Your task to perform on an android device: refresh tabs in the chrome app Image 0: 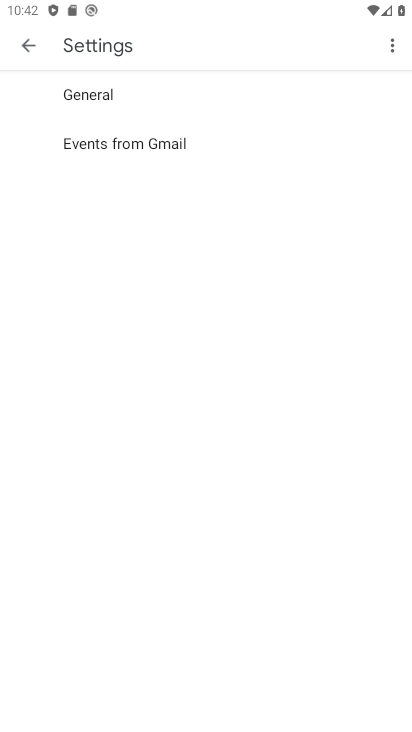
Step 0: press home button
Your task to perform on an android device: refresh tabs in the chrome app Image 1: 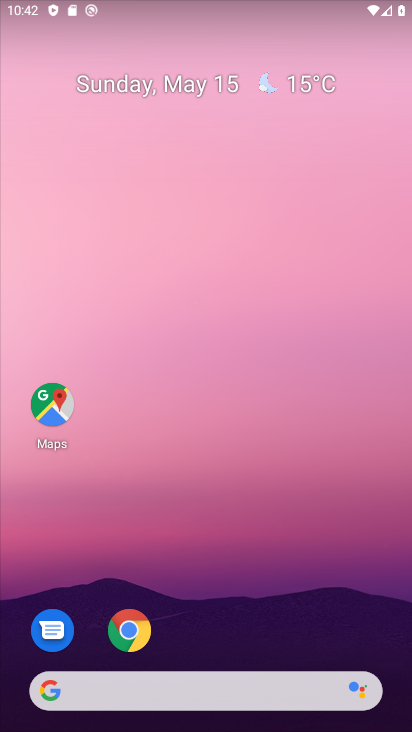
Step 1: drag from (366, 611) to (385, 136)
Your task to perform on an android device: refresh tabs in the chrome app Image 2: 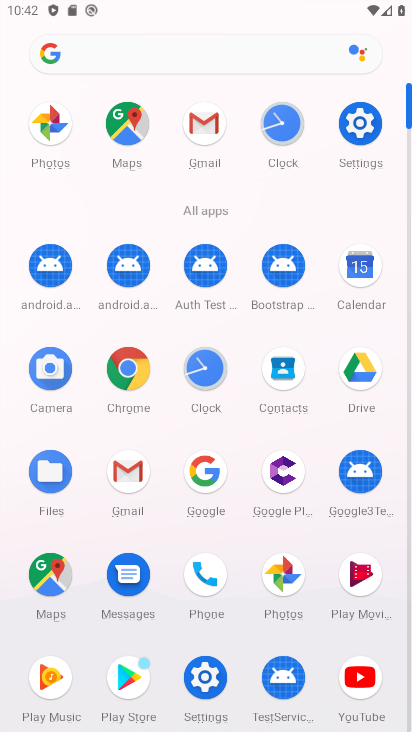
Step 2: click (136, 369)
Your task to perform on an android device: refresh tabs in the chrome app Image 3: 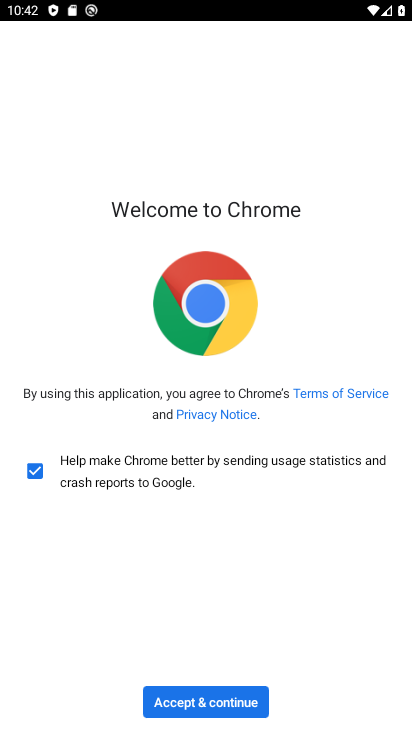
Step 3: click (253, 695)
Your task to perform on an android device: refresh tabs in the chrome app Image 4: 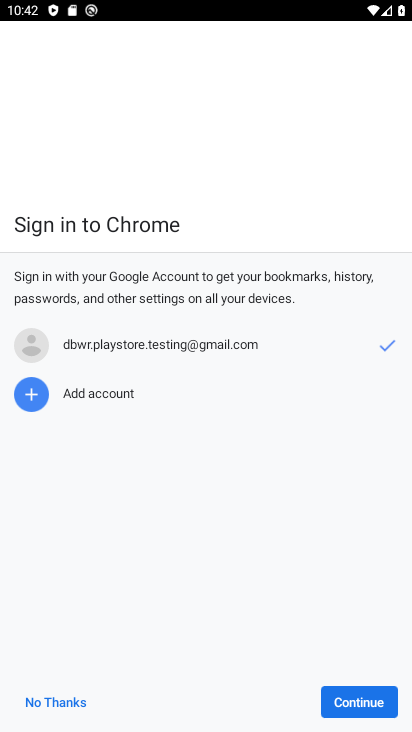
Step 4: click (374, 700)
Your task to perform on an android device: refresh tabs in the chrome app Image 5: 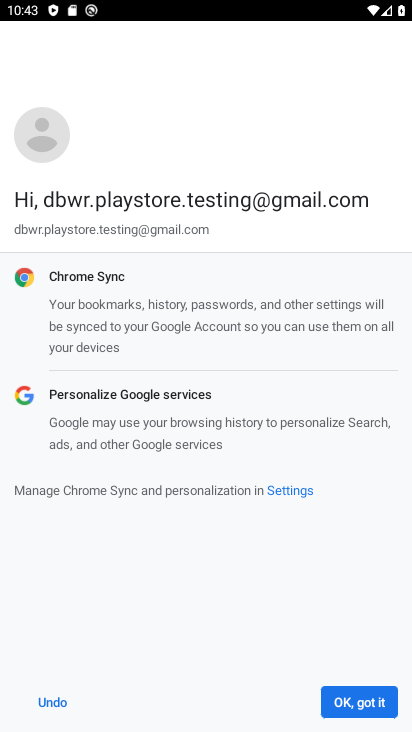
Step 5: click (345, 697)
Your task to perform on an android device: refresh tabs in the chrome app Image 6: 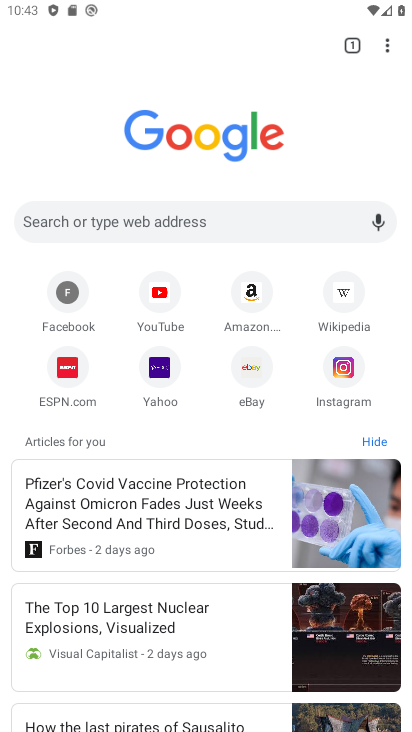
Step 6: click (389, 54)
Your task to perform on an android device: refresh tabs in the chrome app Image 7: 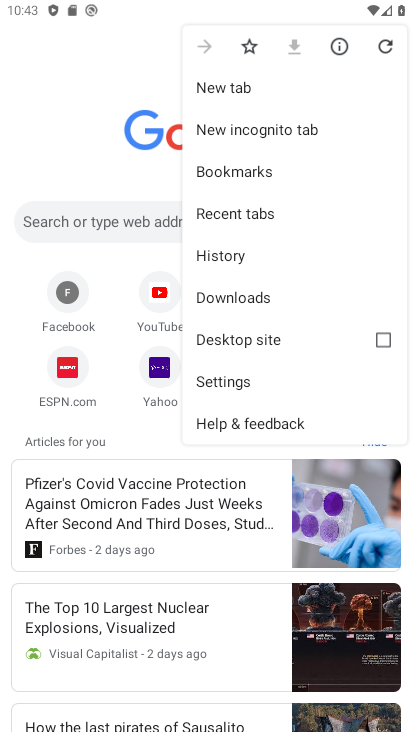
Step 7: click (393, 48)
Your task to perform on an android device: refresh tabs in the chrome app Image 8: 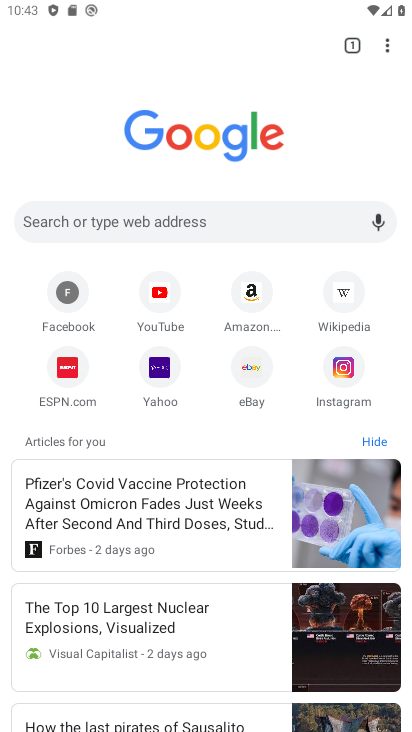
Step 8: task complete